Your task to perform on an android device: turn off location Image 0: 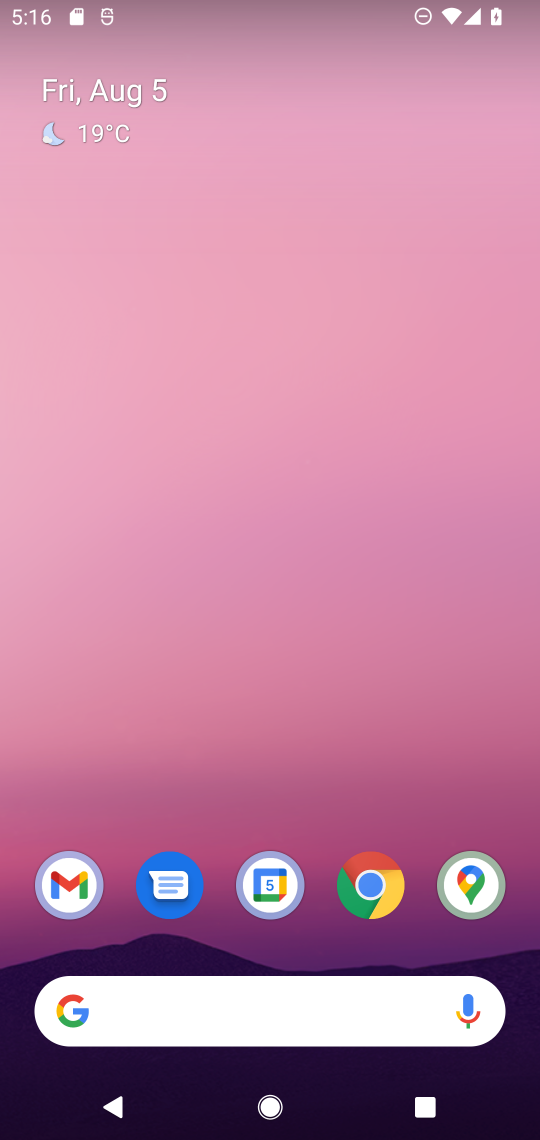
Step 0: drag from (298, 946) to (280, 81)
Your task to perform on an android device: turn off location Image 1: 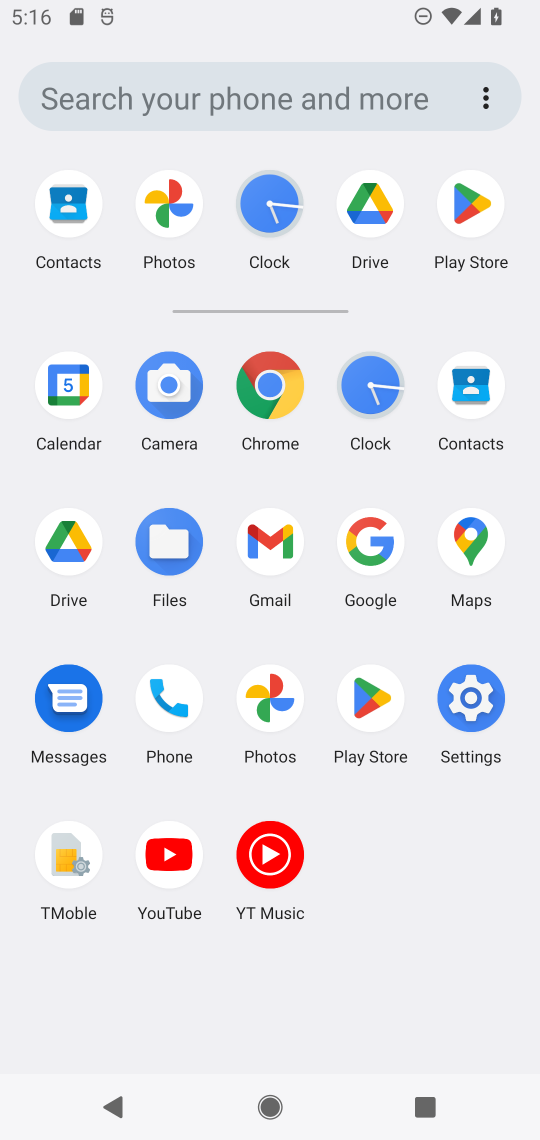
Step 1: click (473, 692)
Your task to perform on an android device: turn off location Image 2: 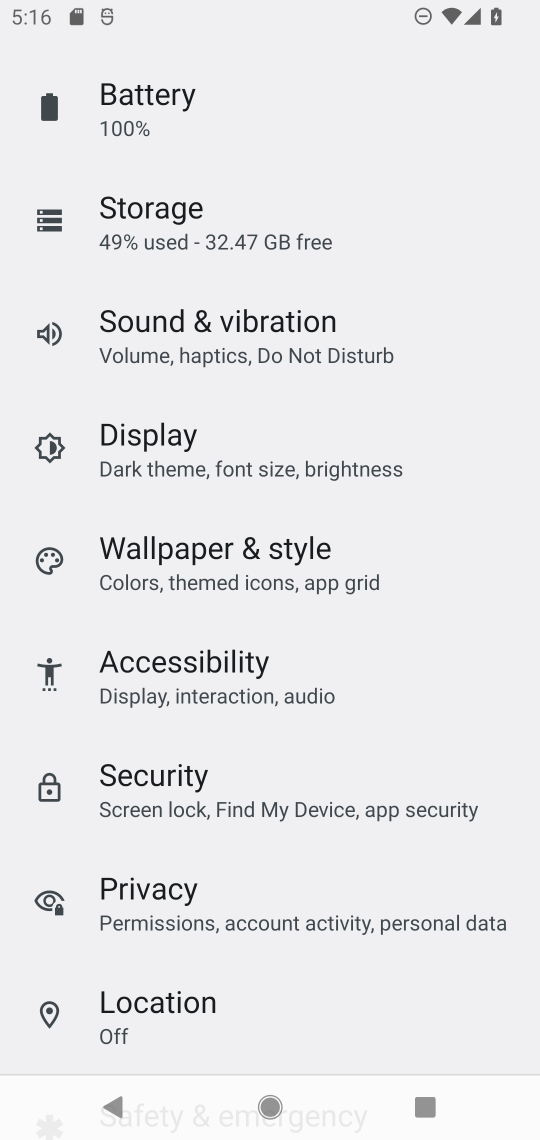
Step 2: click (126, 1010)
Your task to perform on an android device: turn off location Image 3: 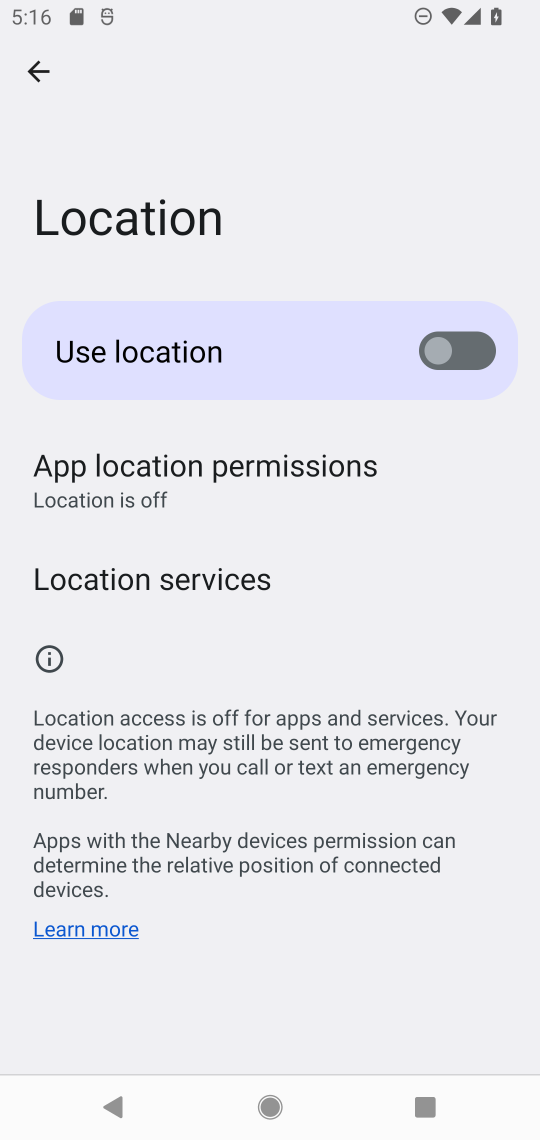
Step 3: task complete